Your task to perform on an android device: choose inbox layout in the gmail app Image 0: 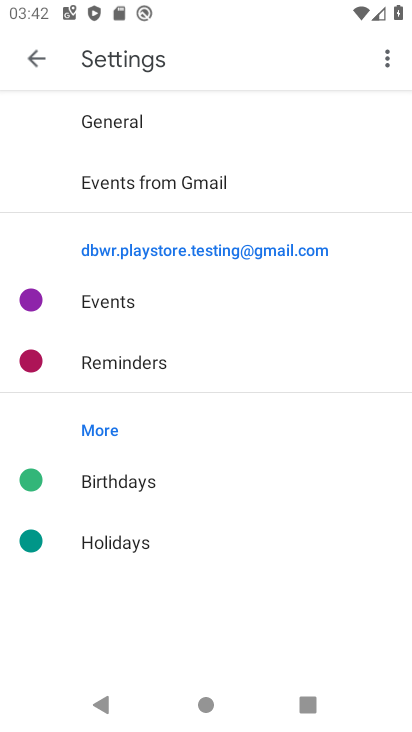
Step 0: press home button
Your task to perform on an android device: choose inbox layout in the gmail app Image 1: 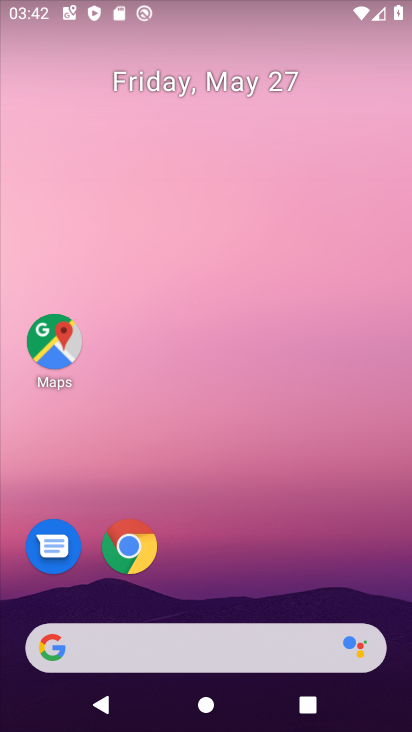
Step 1: drag from (398, 690) to (337, 134)
Your task to perform on an android device: choose inbox layout in the gmail app Image 2: 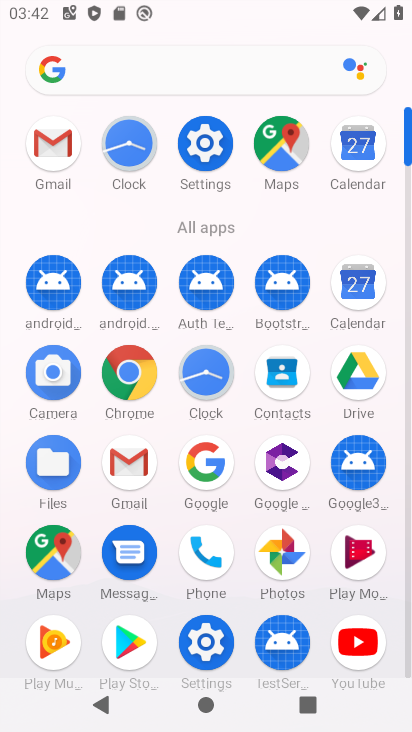
Step 2: click (121, 460)
Your task to perform on an android device: choose inbox layout in the gmail app Image 3: 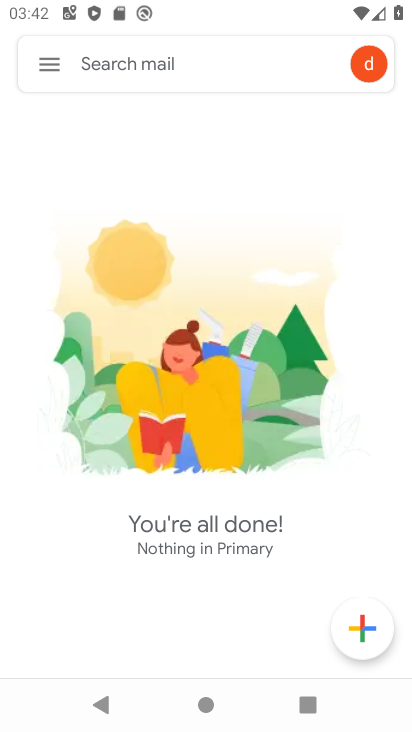
Step 3: click (52, 63)
Your task to perform on an android device: choose inbox layout in the gmail app Image 4: 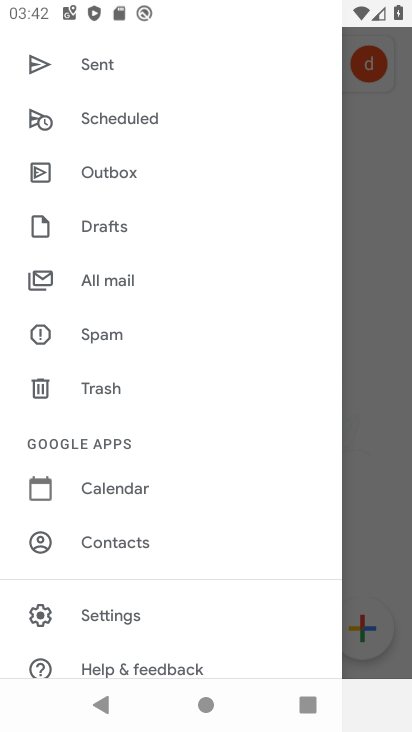
Step 4: click (110, 617)
Your task to perform on an android device: choose inbox layout in the gmail app Image 5: 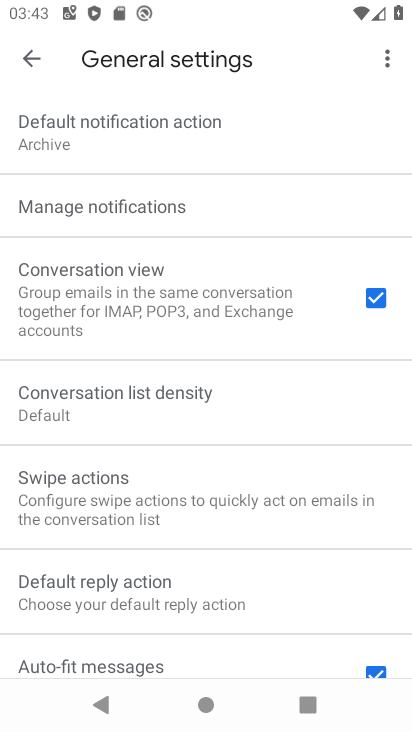
Step 5: click (30, 55)
Your task to perform on an android device: choose inbox layout in the gmail app Image 6: 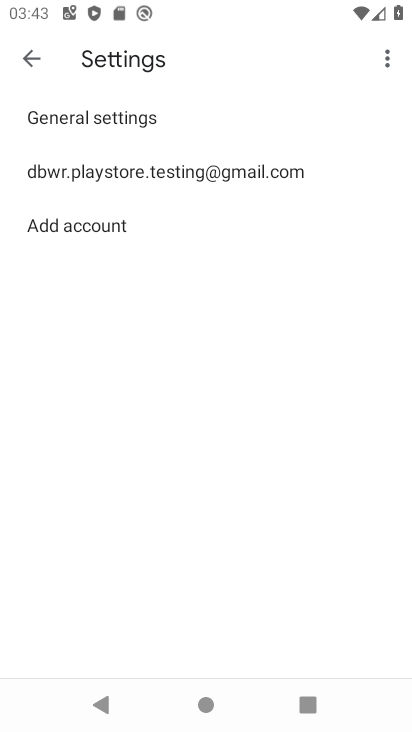
Step 6: click (48, 170)
Your task to perform on an android device: choose inbox layout in the gmail app Image 7: 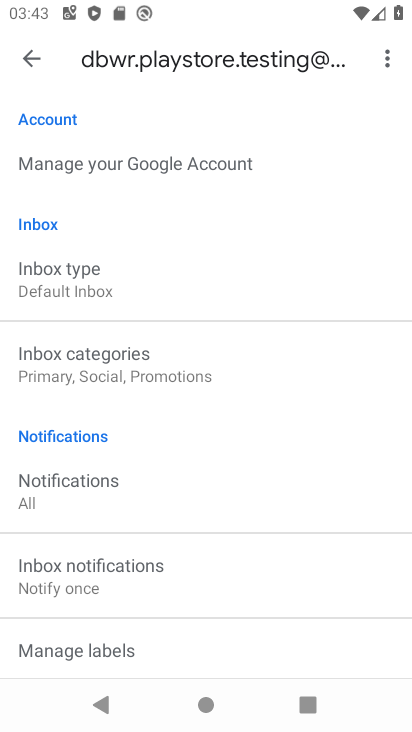
Step 7: click (53, 285)
Your task to perform on an android device: choose inbox layout in the gmail app Image 8: 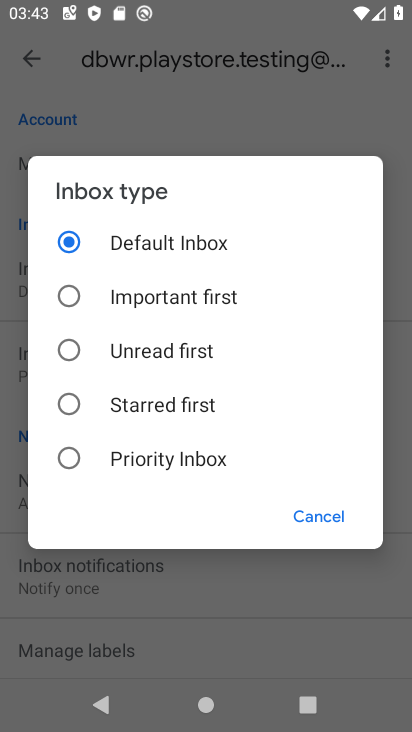
Step 8: click (71, 407)
Your task to perform on an android device: choose inbox layout in the gmail app Image 9: 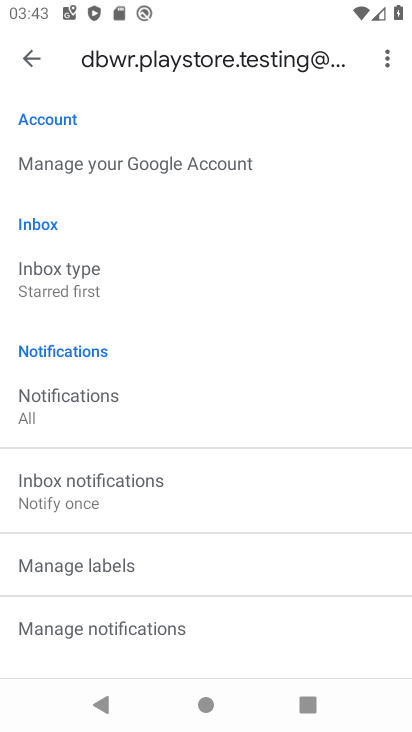
Step 9: task complete